Your task to perform on an android device: turn off javascript in the chrome app Image 0: 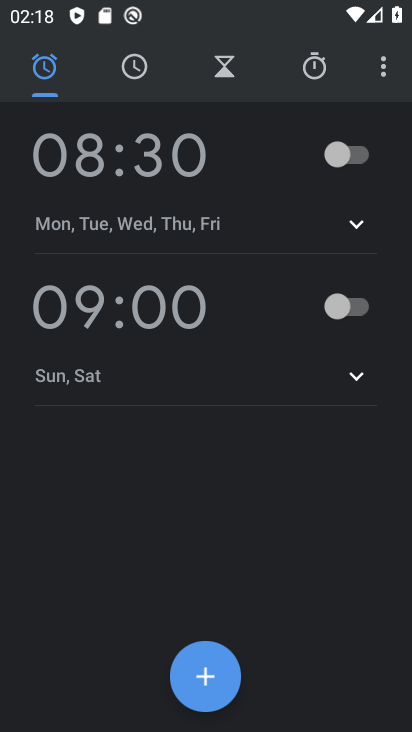
Step 0: press home button
Your task to perform on an android device: turn off javascript in the chrome app Image 1: 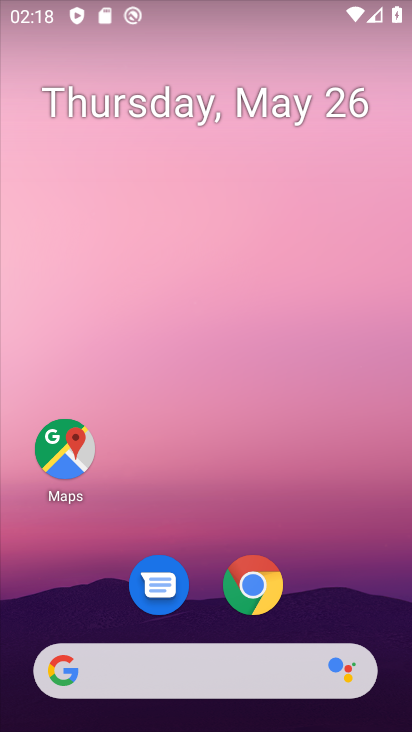
Step 1: click (252, 570)
Your task to perform on an android device: turn off javascript in the chrome app Image 2: 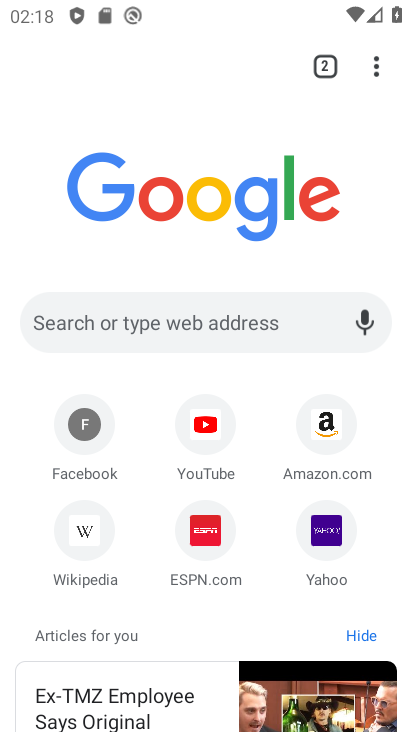
Step 2: click (369, 71)
Your task to perform on an android device: turn off javascript in the chrome app Image 3: 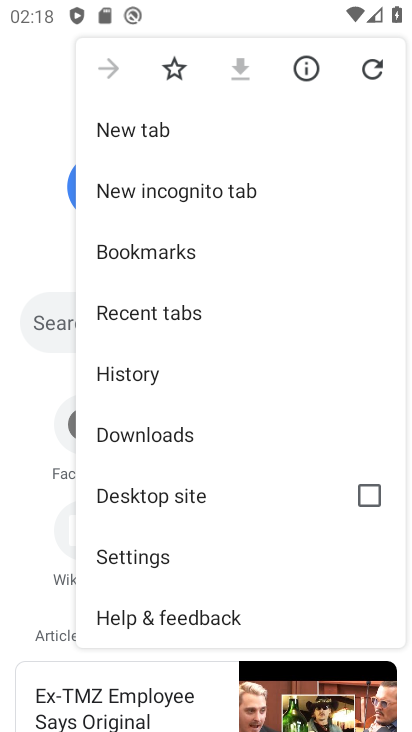
Step 3: click (199, 560)
Your task to perform on an android device: turn off javascript in the chrome app Image 4: 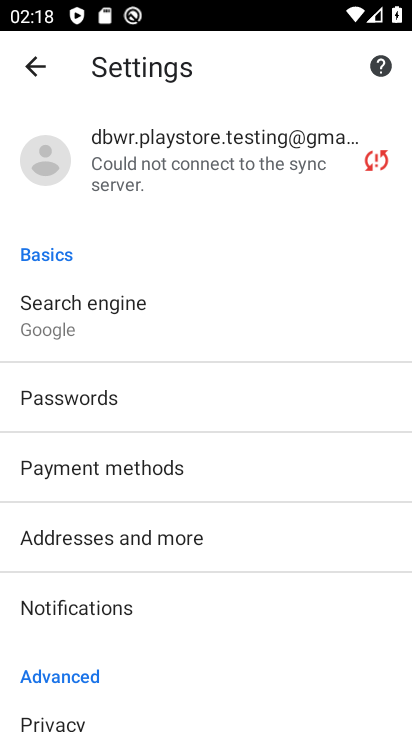
Step 4: drag from (247, 616) to (270, 219)
Your task to perform on an android device: turn off javascript in the chrome app Image 5: 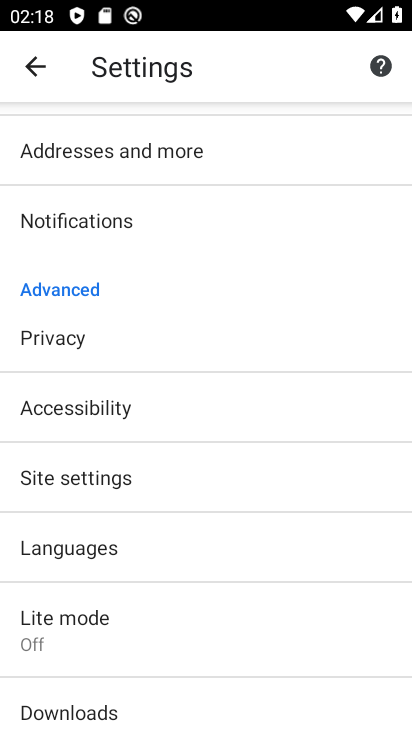
Step 5: click (206, 485)
Your task to perform on an android device: turn off javascript in the chrome app Image 6: 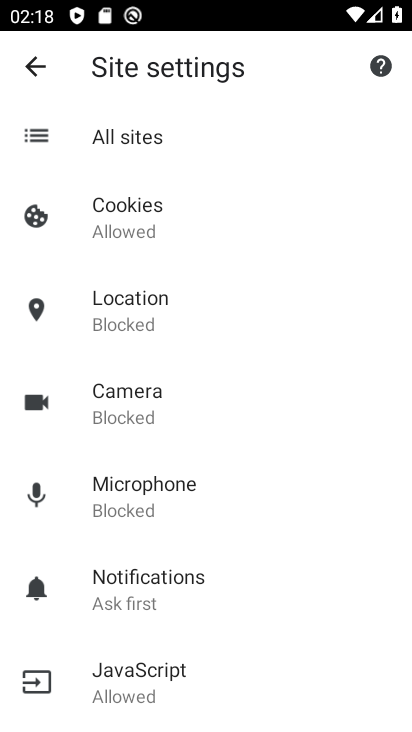
Step 6: click (207, 674)
Your task to perform on an android device: turn off javascript in the chrome app Image 7: 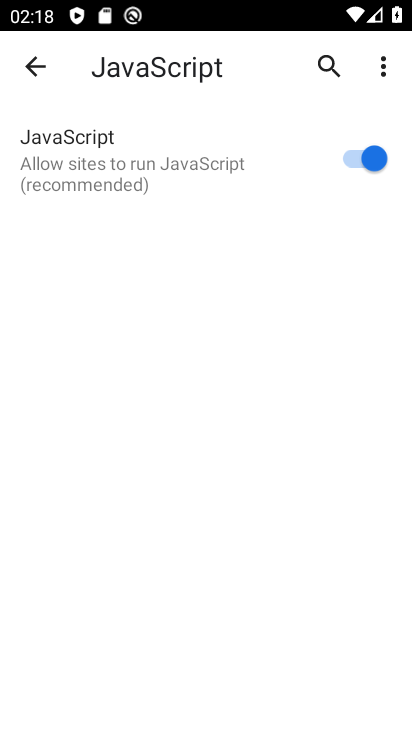
Step 7: click (362, 154)
Your task to perform on an android device: turn off javascript in the chrome app Image 8: 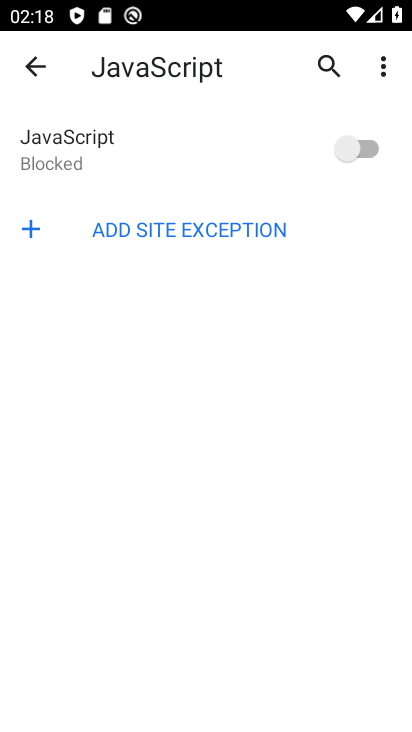
Step 8: task complete